Your task to perform on an android device: clear history in the chrome app Image 0: 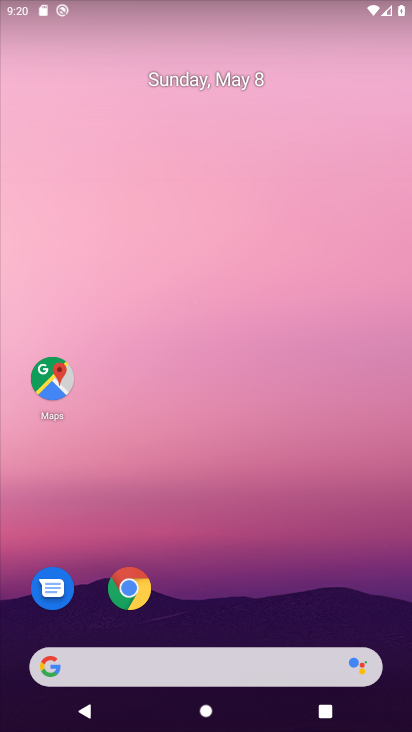
Step 0: click (136, 578)
Your task to perform on an android device: clear history in the chrome app Image 1: 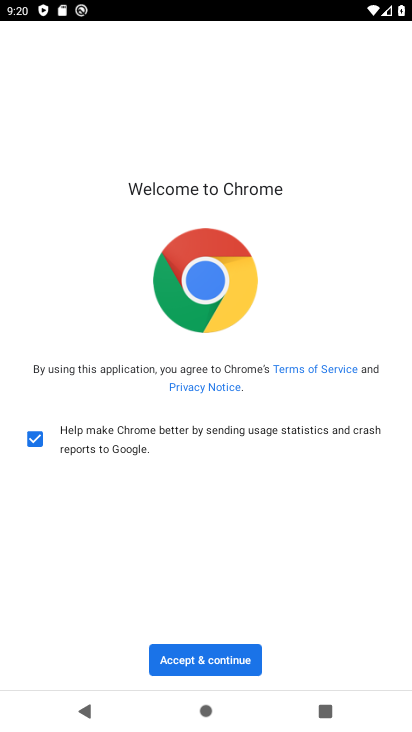
Step 1: click (246, 649)
Your task to perform on an android device: clear history in the chrome app Image 2: 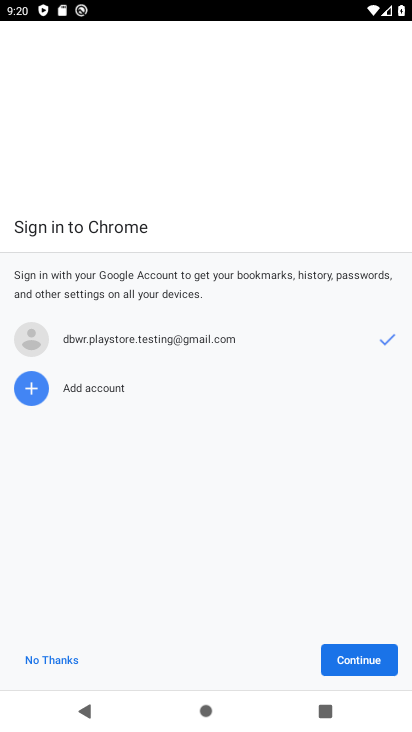
Step 2: click (363, 662)
Your task to perform on an android device: clear history in the chrome app Image 3: 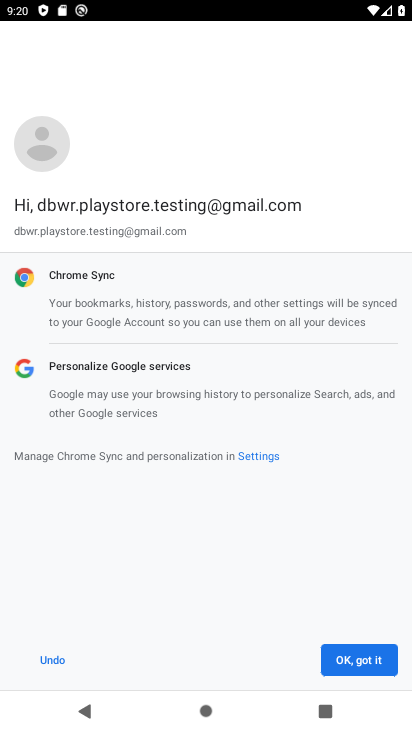
Step 3: click (363, 662)
Your task to perform on an android device: clear history in the chrome app Image 4: 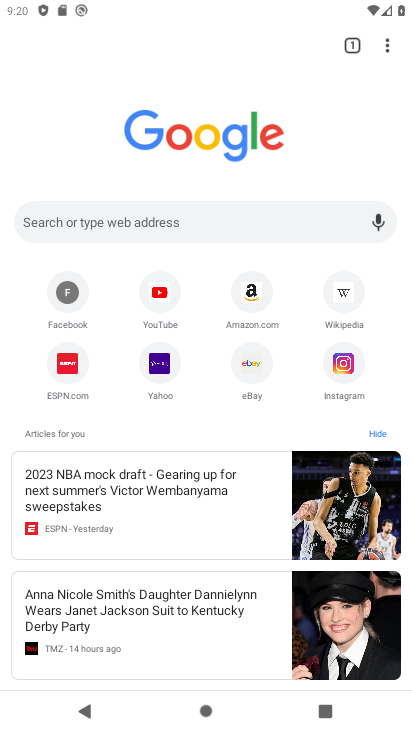
Step 4: task complete